Your task to perform on an android device: turn off improve location accuracy Image 0: 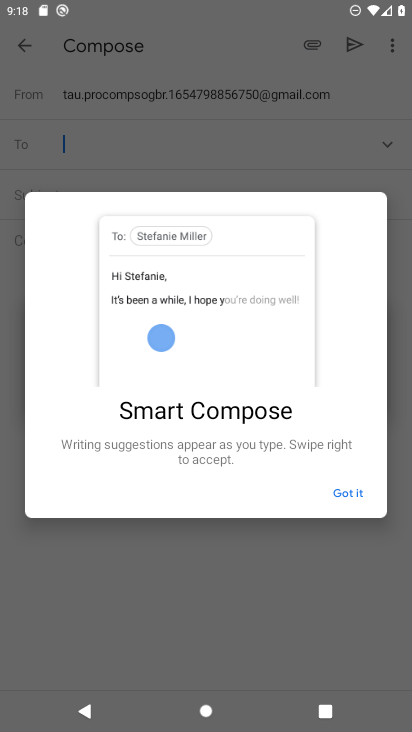
Step 0: press home button
Your task to perform on an android device: turn off improve location accuracy Image 1: 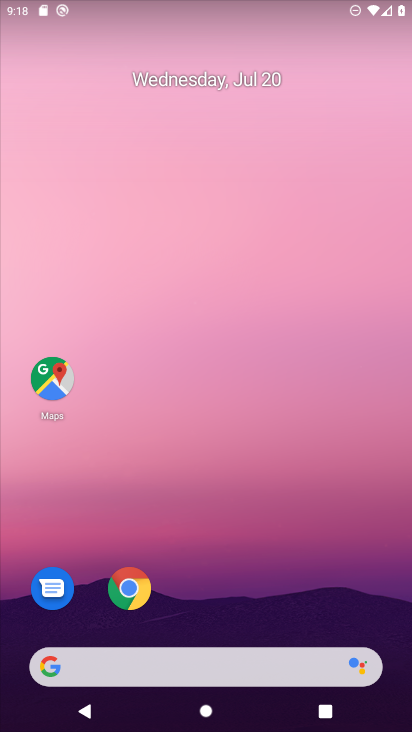
Step 1: drag from (192, 614) to (238, 32)
Your task to perform on an android device: turn off improve location accuracy Image 2: 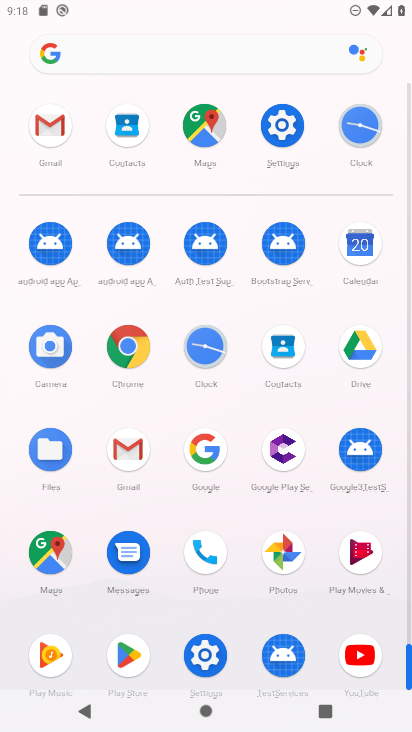
Step 2: click (283, 136)
Your task to perform on an android device: turn off improve location accuracy Image 3: 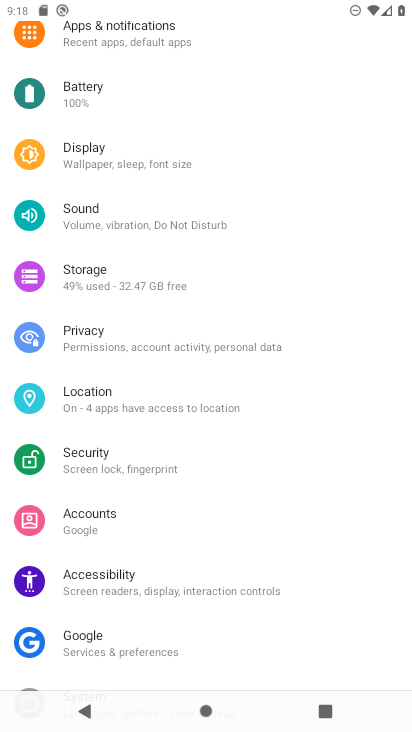
Step 3: click (138, 407)
Your task to perform on an android device: turn off improve location accuracy Image 4: 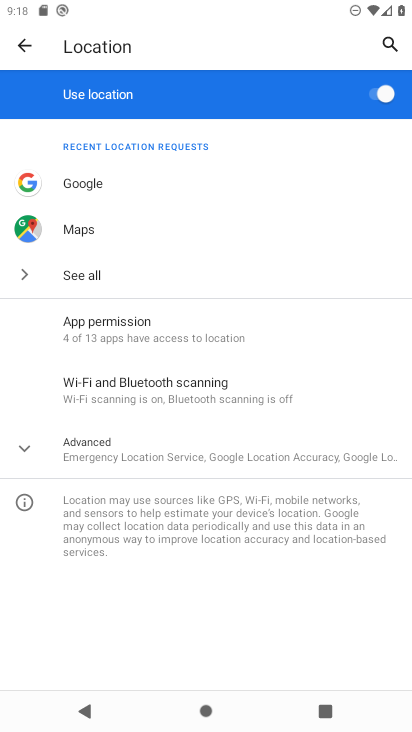
Step 4: click (124, 467)
Your task to perform on an android device: turn off improve location accuracy Image 5: 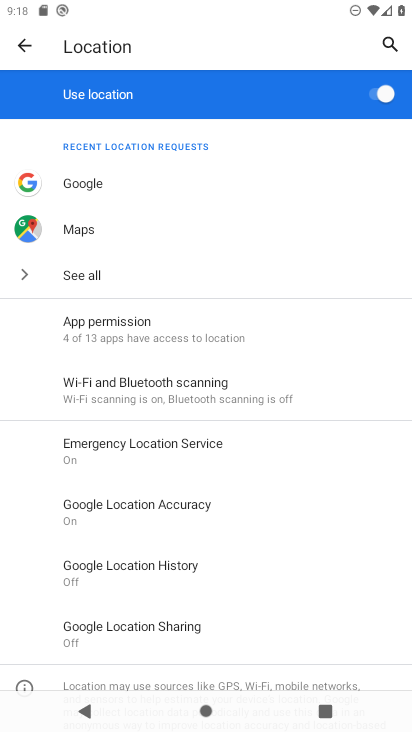
Step 5: click (196, 514)
Your task to perform on an android device: turn off improve location accuracy Image 6: 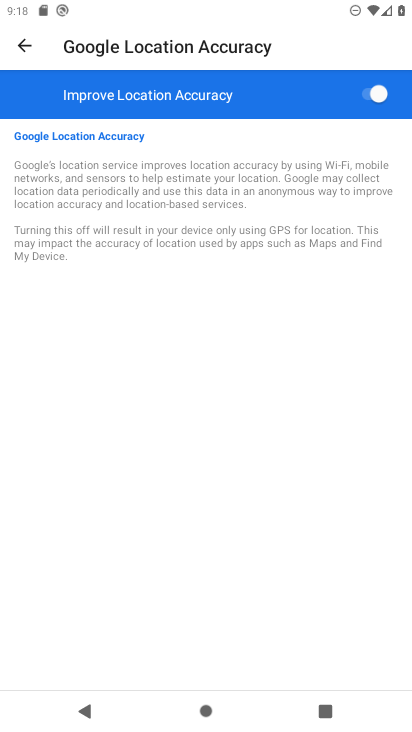
Step 6: click (380, 97)
Your task to perform on an android device: turn off improve location accuracy Image 7: 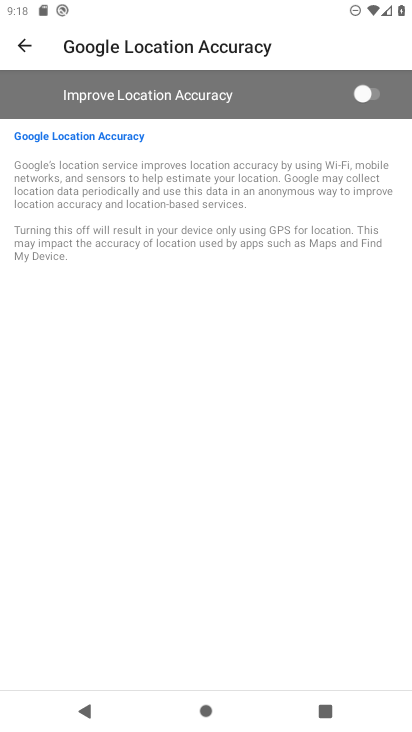
Step 7: task complete